Your task to perform on an android device: Open the web browser Image 0: 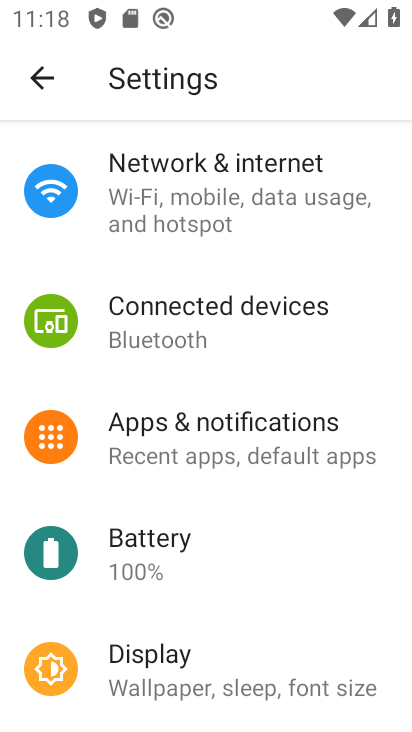
Step 0: press home button
Your task to perform on an android device: Open the web browser Image 1: 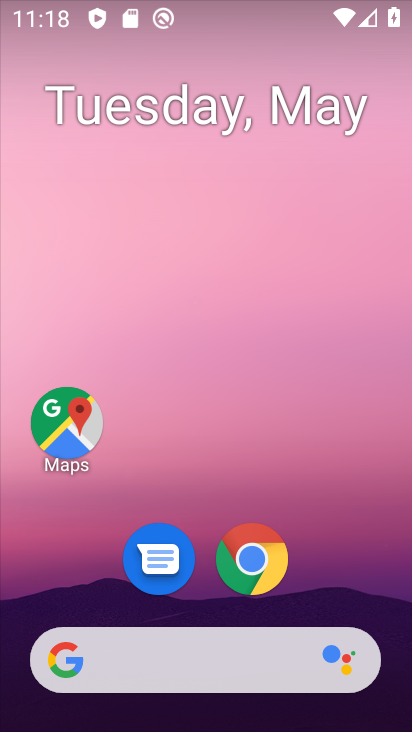
Step 1: drag from (80, 600) to (176, 116)
Your task to perform on an android device: Open the web browser Image 2: 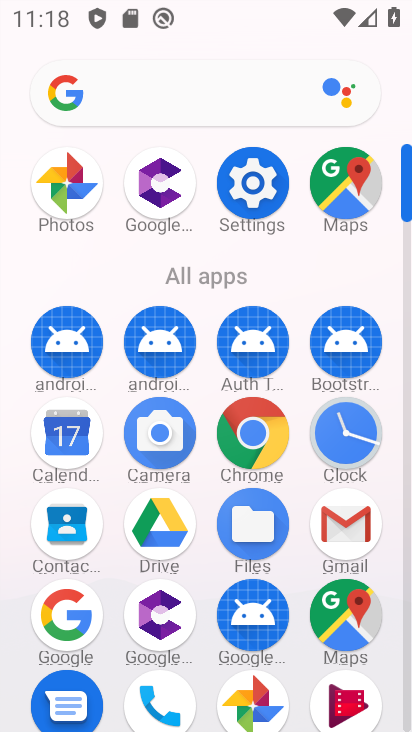
Step 2: click (83, 620)
Your task to perform on an android device: Open the web browser Image 3: 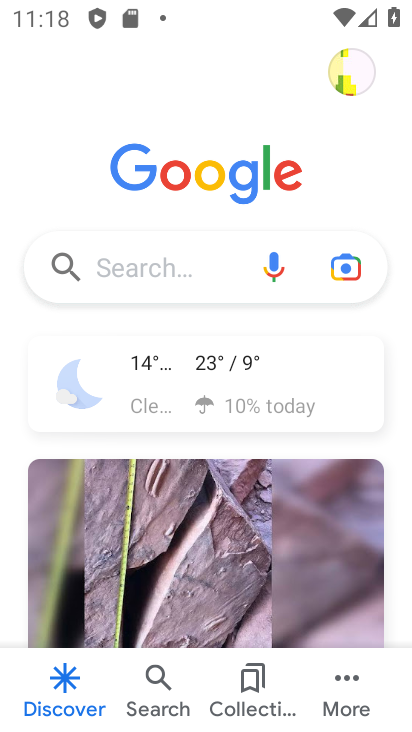
Step 3: task complete